Your task to perform on an android device: turn off improve location accuracy Image 0: 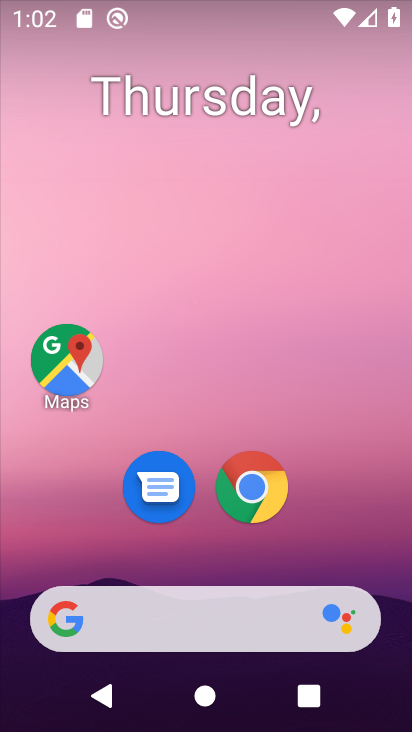
Step 0: drag from (191, 519) to (180, 23)
Your task to perform on an android device: turn off improve location accuracy Image 1: 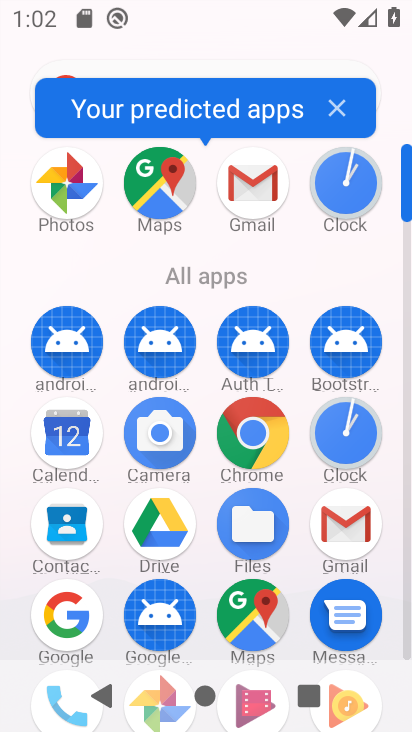
Step 1: drag from (206, 492) to (185, 248)
Your task to perform on an android device: turn off improve location accuracy Image 2: 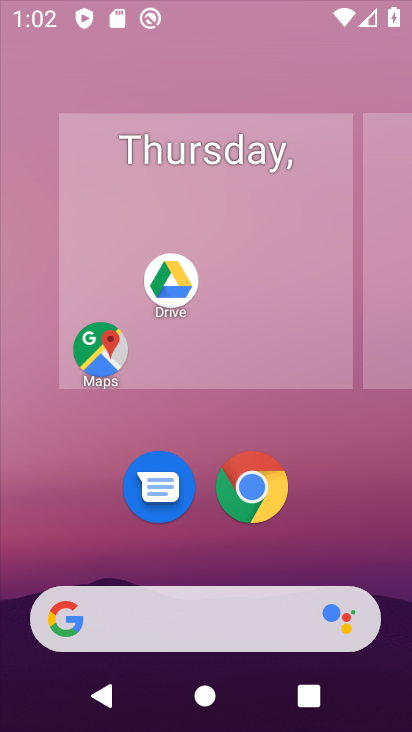
Step 2: drag from (223, 574) to (143, 15)
Your task to perform on an android device: turn off improve location accuracy Image 3: 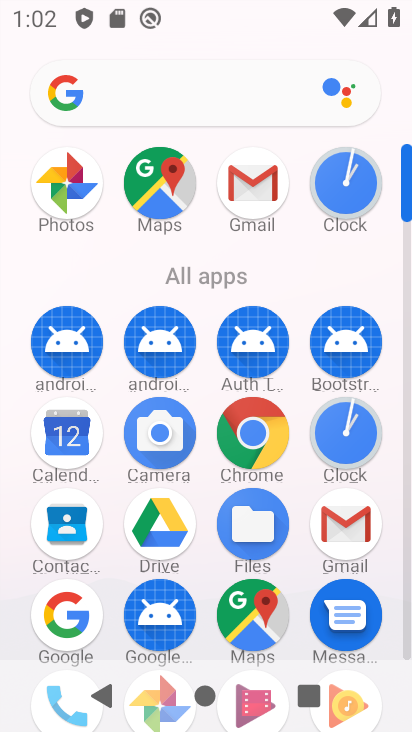
Step 3: drag from (216, 654) to (162, 23)
Your task to perform on an android device: turn off improve location accuracy Image 4: 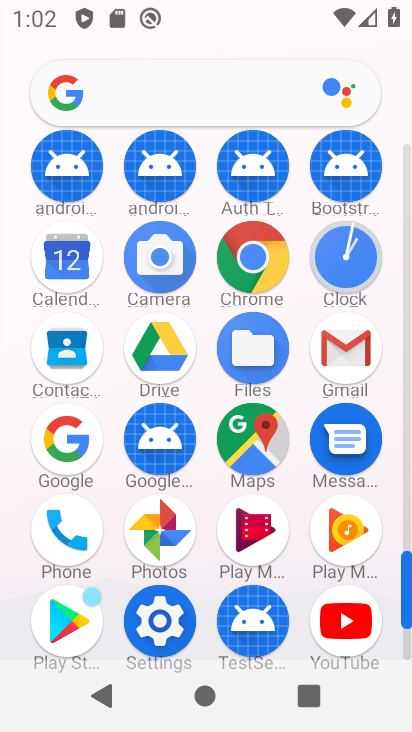
Step 4: click (162, 613)
Your task to perform on an android device: turn off improve location accuracy Image 5: 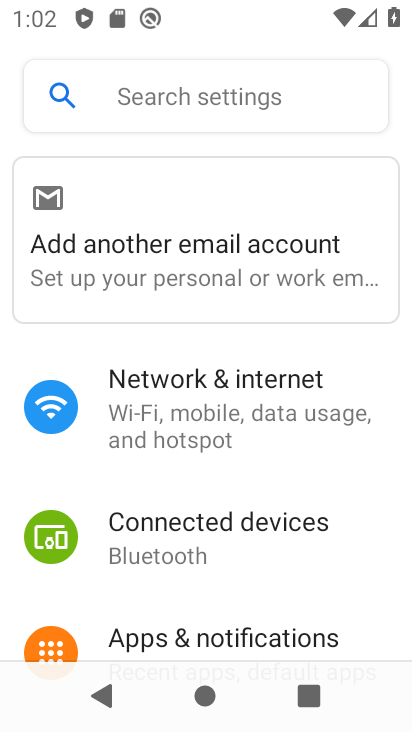
Step 5: drag from (270, 507) to (218, 169)
Your task to perform on an android device: turn off improve location accuracy Image 6: 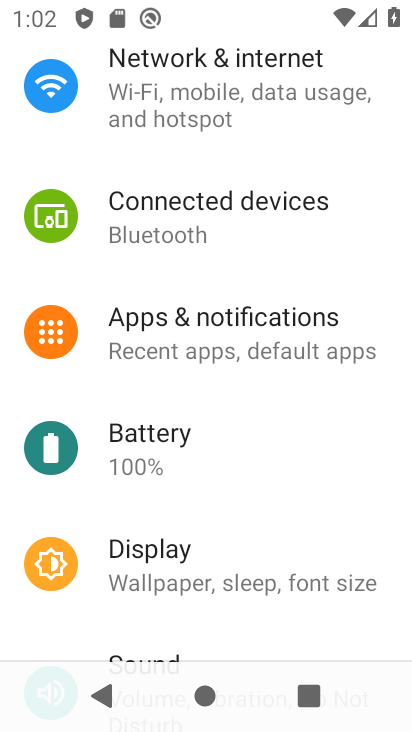
Step 6: drag from (220, 516) to (150, 114)
Your task to perform on an android device: turn off improve location accuracy Image 7: 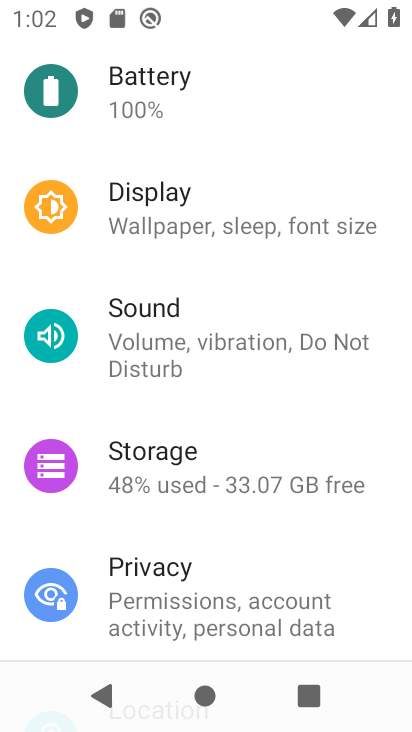
Step 7: drag from (198, 544) to (175, 221)
Your task to perform on an android device: turn off improve location accuracy Image 8: 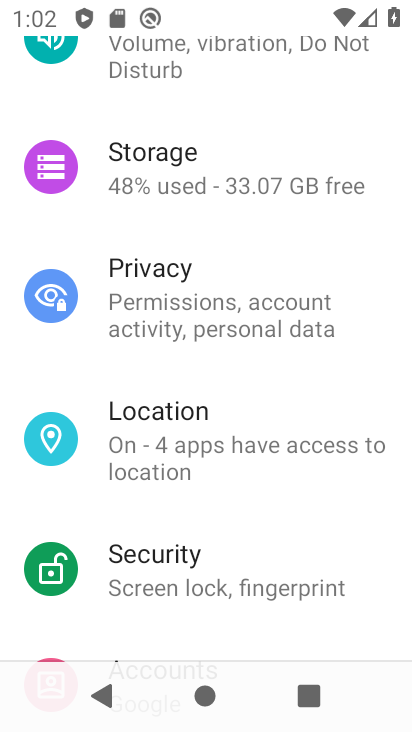
Step 8: click (169, 465)
Your task to perform on an android device: turn off improve location accuracy Image 9: 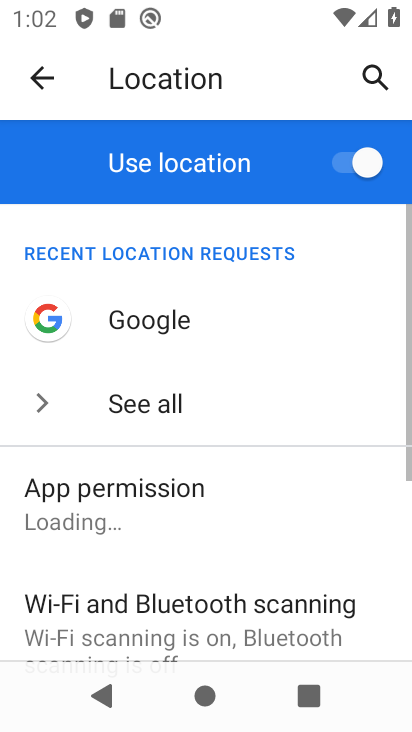
Step 9: drag from (231, 565) to (170, 159)
Your task to perform on an android device: turn off improve location accuracy Image 10: 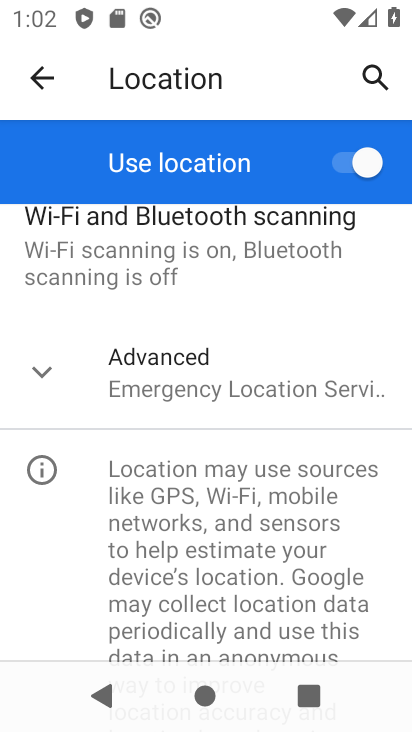
Step 10: click (163, 351)
Your task to perform on an android device: turn off improve location accuracy Image 11: 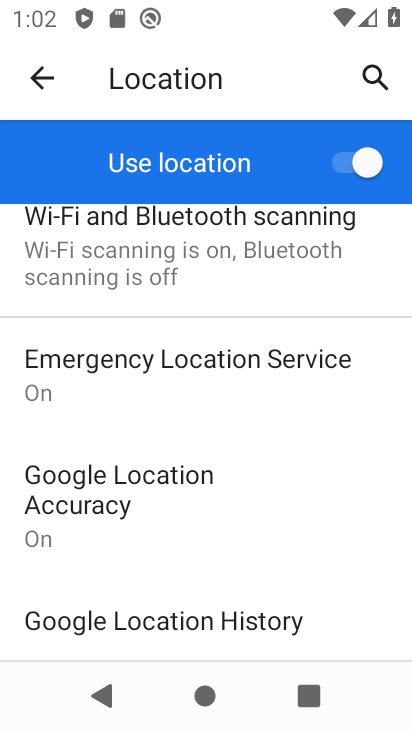
Step 11: click (206, 514)
Your task to perform on an android device: turn off improve location accuracy Image 12: 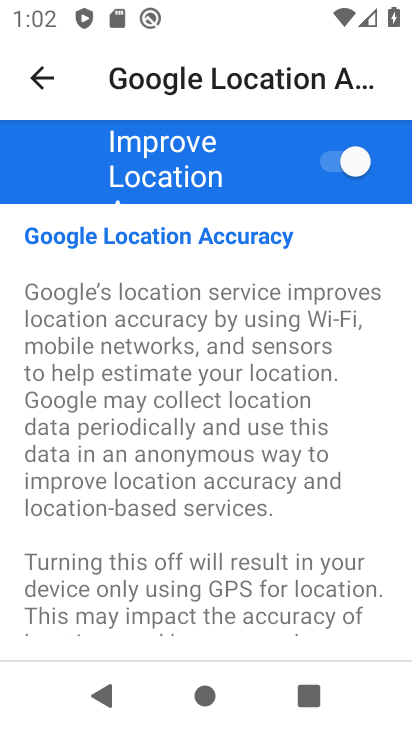
Step 12: click (341, 172)
Your task to perform on an android device: turn off improve location accuracy Image 13: 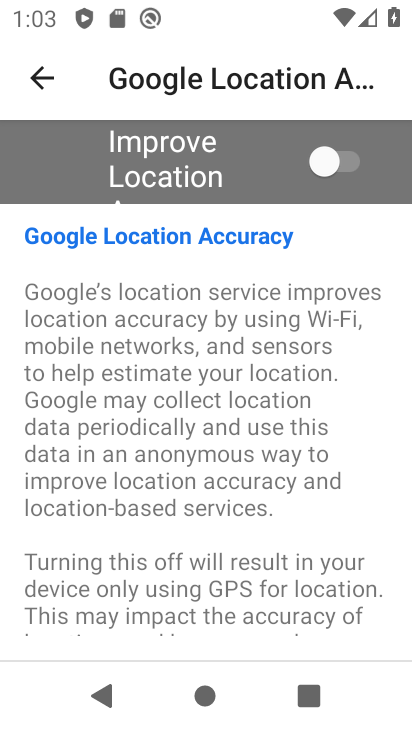
Step 13: task complete